Your task to perform on an android device: see creations saved in the google photos Image 0: 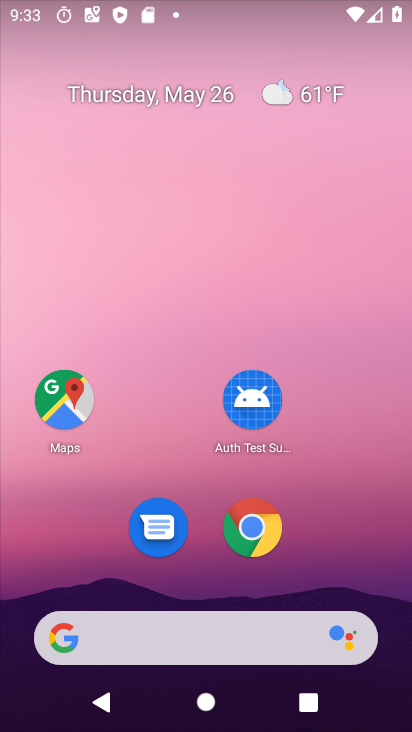
Step 0: drag from (361, 540) to (364, 51)
Your task to perform on an android device: see creations saved in the google photos Image 1: 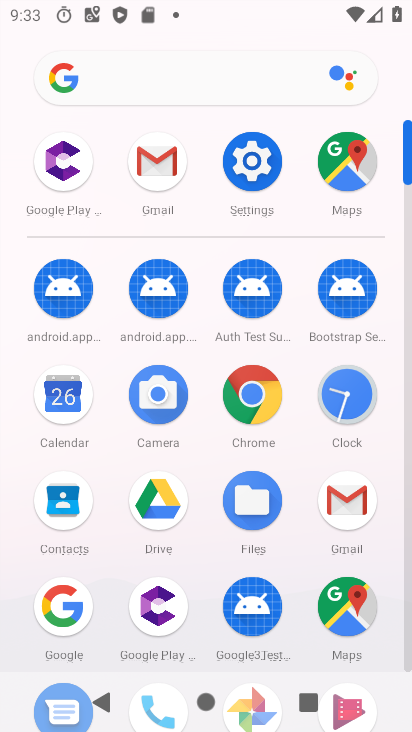
Step 1: drag from (392, 566) to (378, 206)
Your task to perform on an android device: see creations saved in the google photos Image 2: 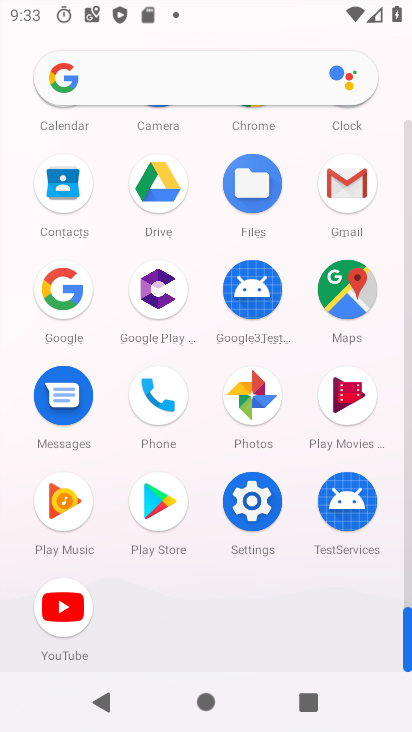
Step 2: click (262, 422)
Your task to perform on an android device: see creations saved in the google photos Image 3: 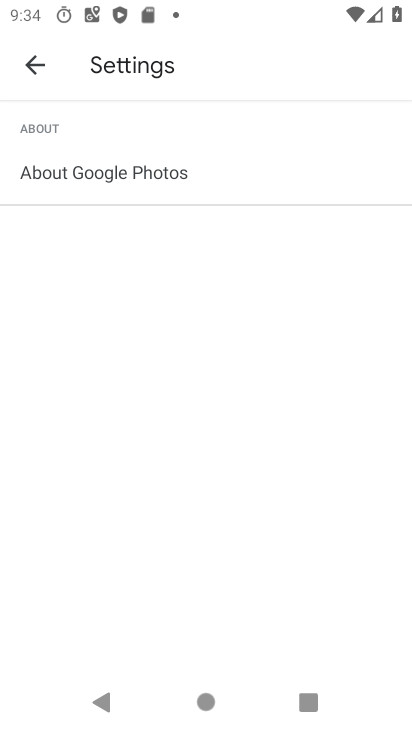
Step 3: press home button
Your task to perform on an android device: see creations saved in the google photos Image 4: 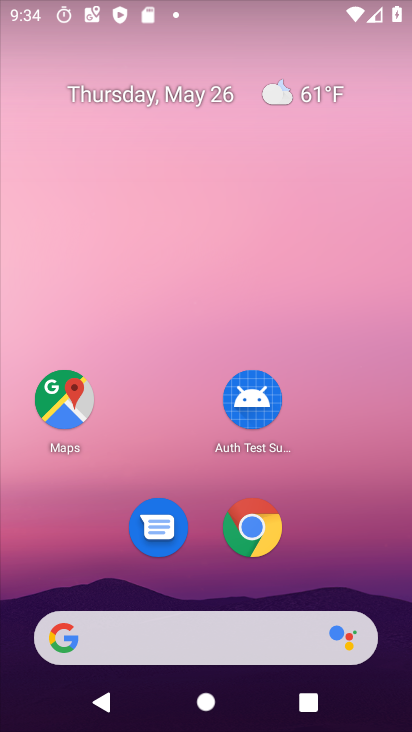
Step 4: drag from (332, 537) to (395, 0)
Your task to perform on an android device: see creations saved in the google photos Image 5: 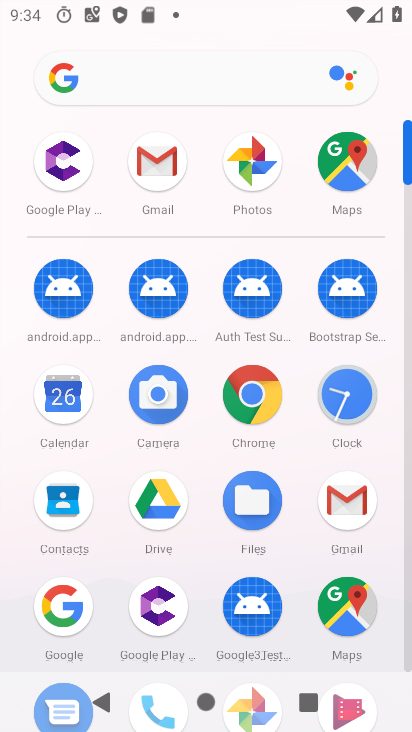
Step 5: click (257, 159)
Your task to perform on an android device: see creations saved in the google photos Image 6: 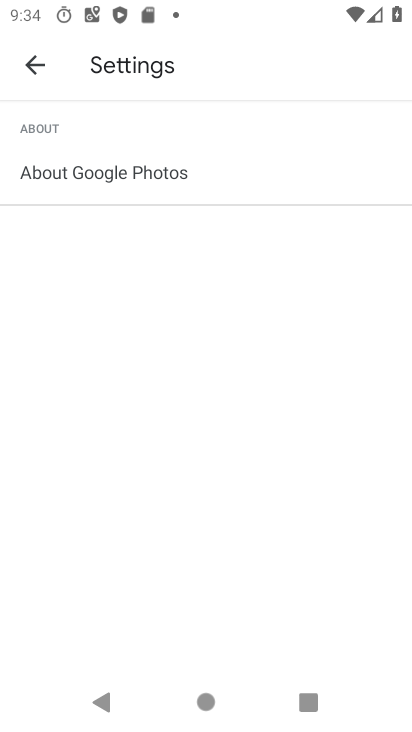
Step 6: click (26, 64)
Your task to perform on an android device: see creations saved in the google photos Image 7: 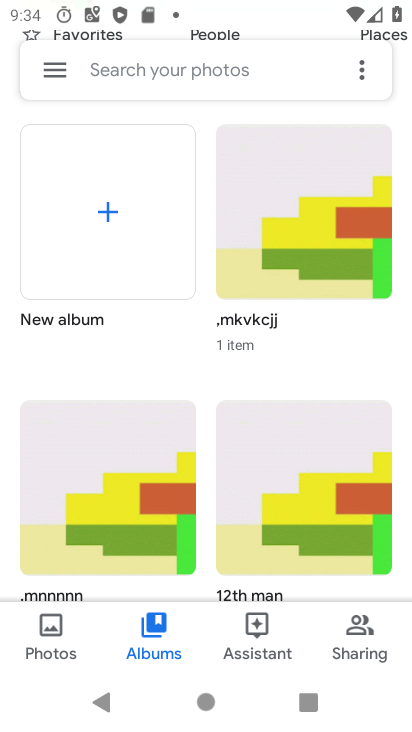
Step 7: task complete